Your task to perform on an android device: What's on my calendar today? Image 0: 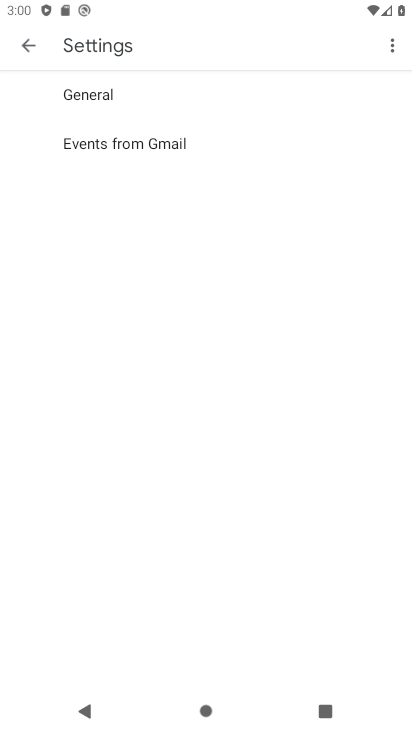
Step 0: press home button
Your task to perform on an android device: What's on my calendar today? Image 1: 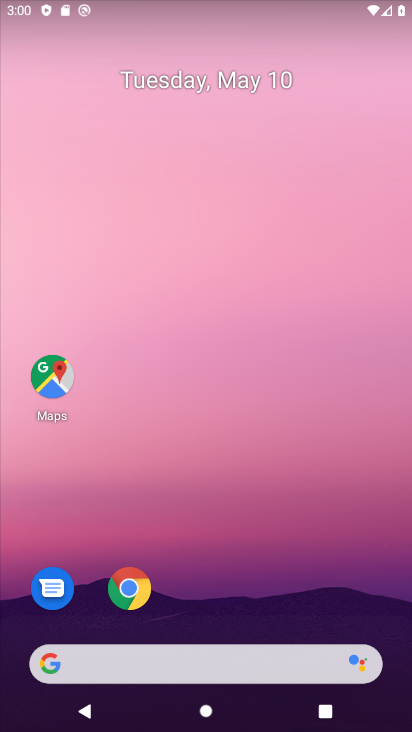
Step 1: drag from (217, 590) to (358, 52)
Your task to perform on an android device: What's on my calendar today? Image 2: 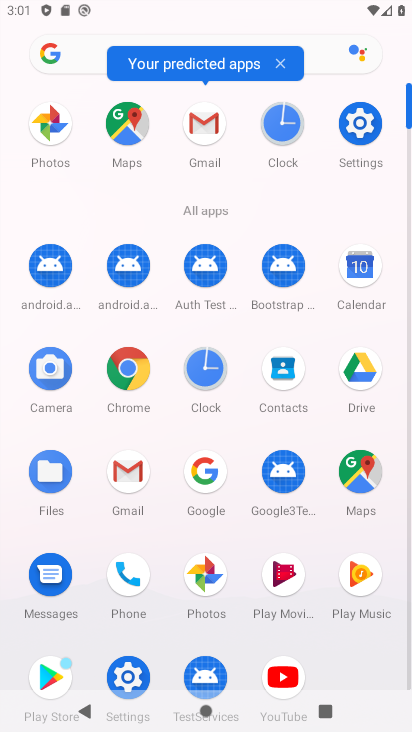
Step 2: click (368, 267)
Your task to perform on an android device: What's on my calendar today? Image 3: 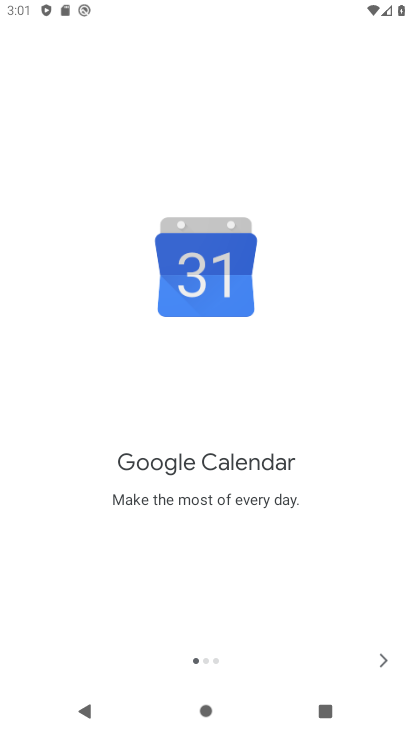
Step 3: click (391, 655)
Your task to perform on an android device: What's on my calendar today? Image 4: 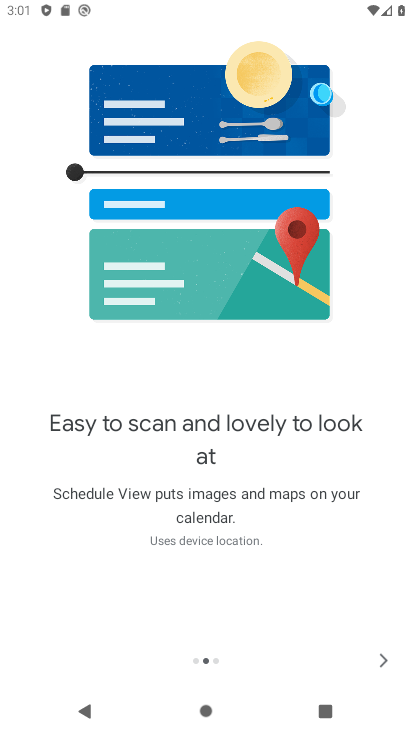
Step 4: click (390, 655)
Your task to perform on an android device: What's on my calendar today? Image 5: 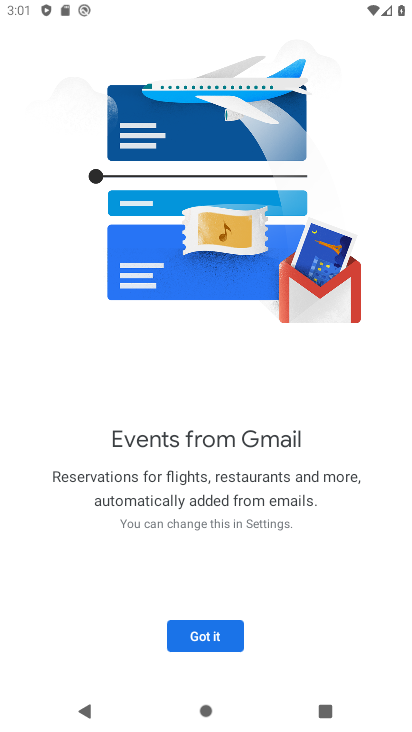
Step 5: click (209, 640)
Your task to perform on an android device: What's on my calendar today? Image 6: 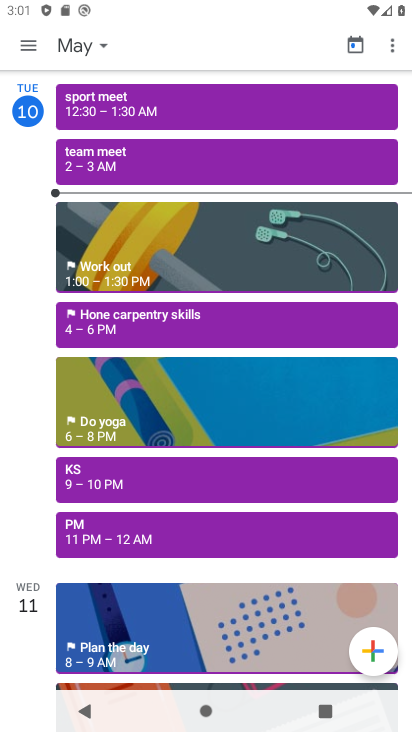
Step 6: task complete